Your task to perform on an android device: Open the calendar and show me this week's events? Image 0: 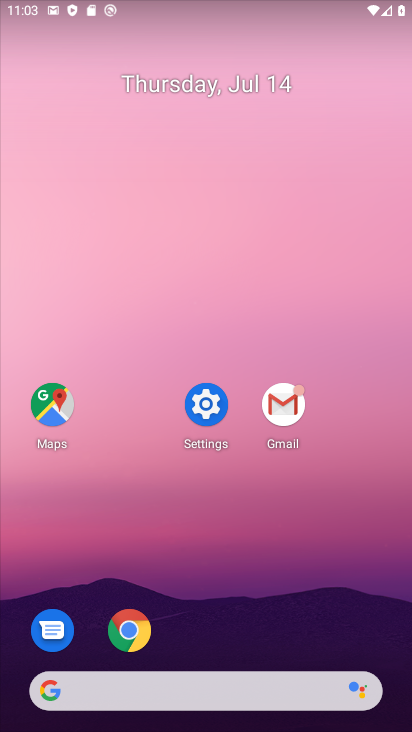
Step 0: drag from (388, 492) to (384, 44)
Your task to perform on an android device: Open the calendar and show me this week's events? Image 1: 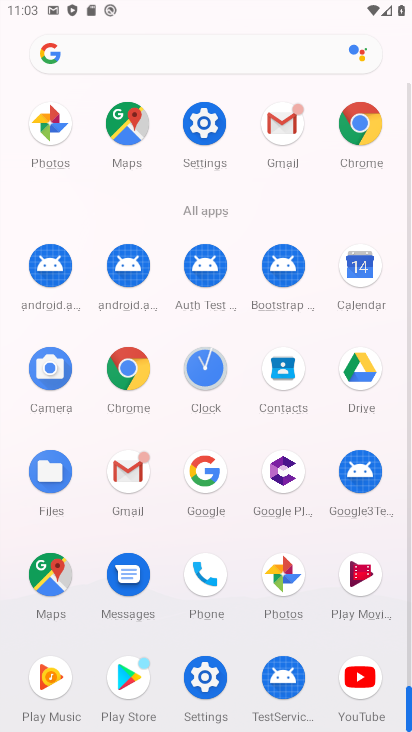
Step 1: click (357, 281)
Your task to perform on an android device: Open the calendar and show me this week's events? Image 2: 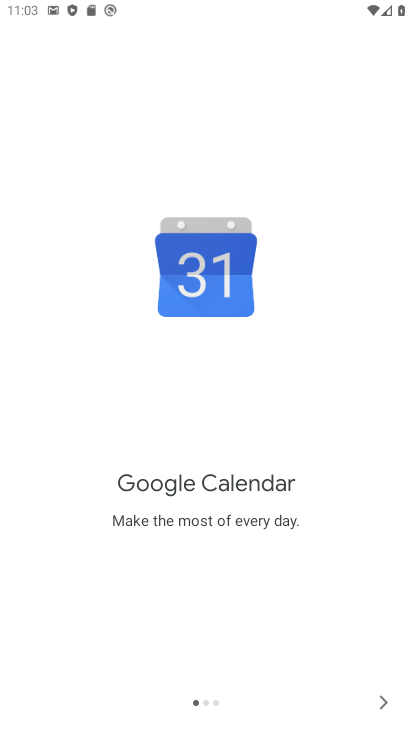
Step 2: click (378, 696)
Your task to perform on an android device: Open the calendar and show me this week's events? Image 3: 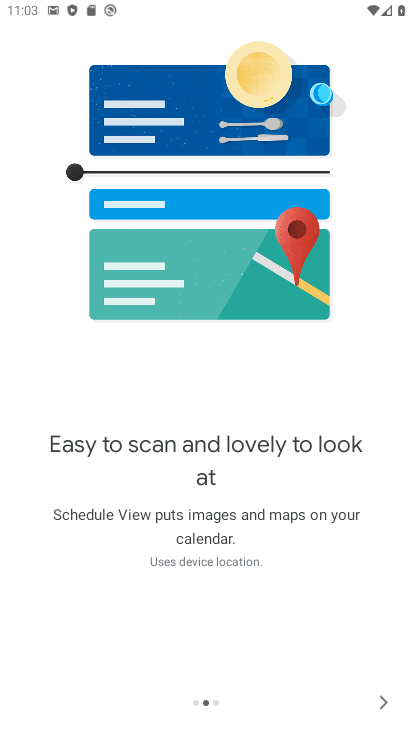
Step 3: click (379, 696)
Your task to perform on an android device: Open the calendar and show me this week's events? Image 4: 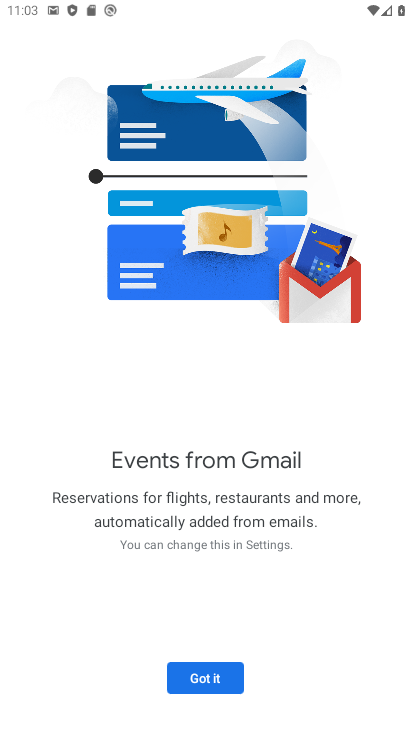
Step 4: click (213, 667)
Your task to perform on an android device: Open the calendar and show me this week's events? Image 5: 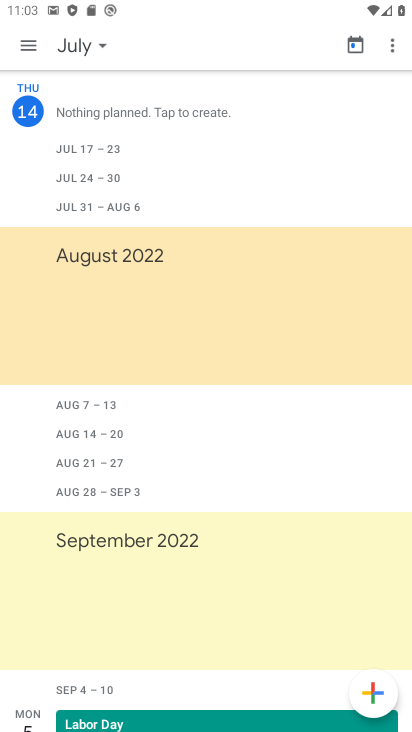
Step 5: click (92, 46)
Your task to perform on an android device: Open the calendar and show me this week's events? Image 6: 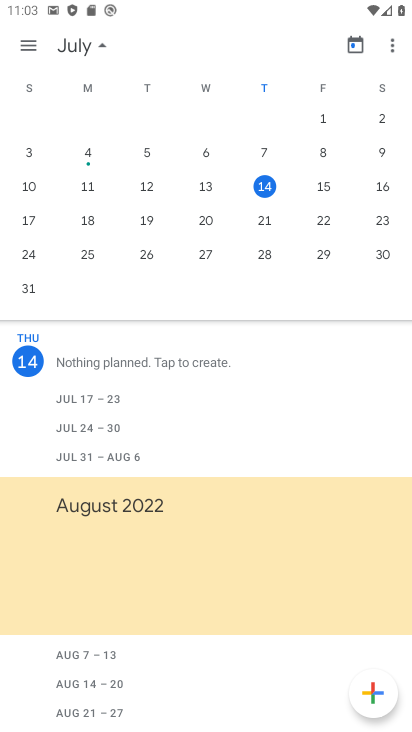
Step 6: click (203, 181)
Your task to perform on an android device: Open the calendar and show me this week's events? Image 7: 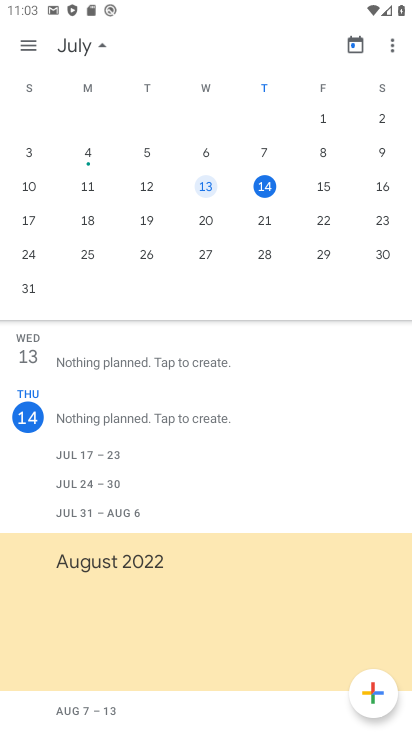
Step 7: click (29, 45)
Your task to perform on an android device: Open the calendar and show me this week's events? Image 8: 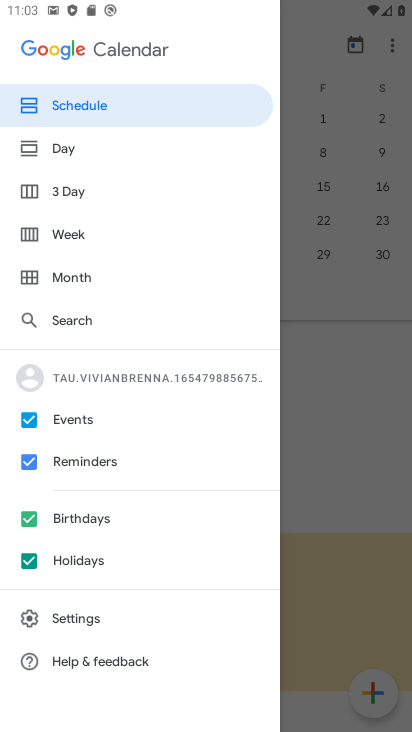
Step 8: click (68, 228)
Your task to perform on an android device: Open the calendar and show me this week's events? Image 9: 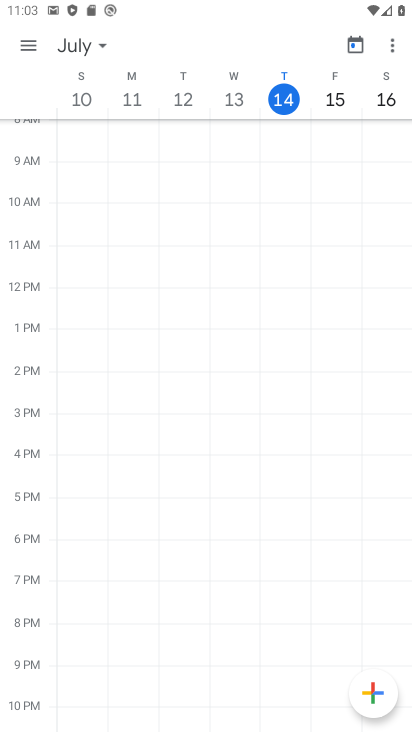
Step 9: click (29, 49)
Your task to perform on an android device: Open the calendar and show me this week's events? Image 10: 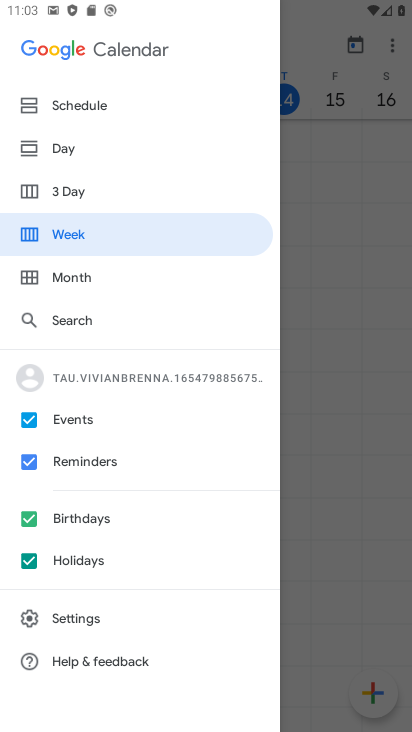
Step 10: click (84, 102)
Your task to perform on an android device: Open the calendar and show me this week's events? Image 11: 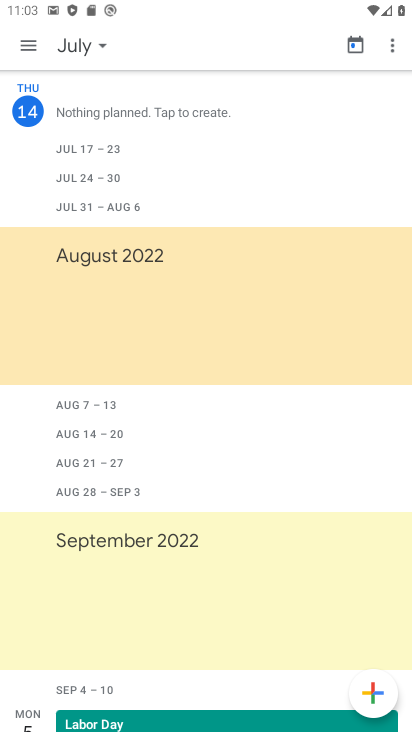
Step 11: task complete